Your task to perform on an android device: move an email to a new category in the gmail app Image 0: 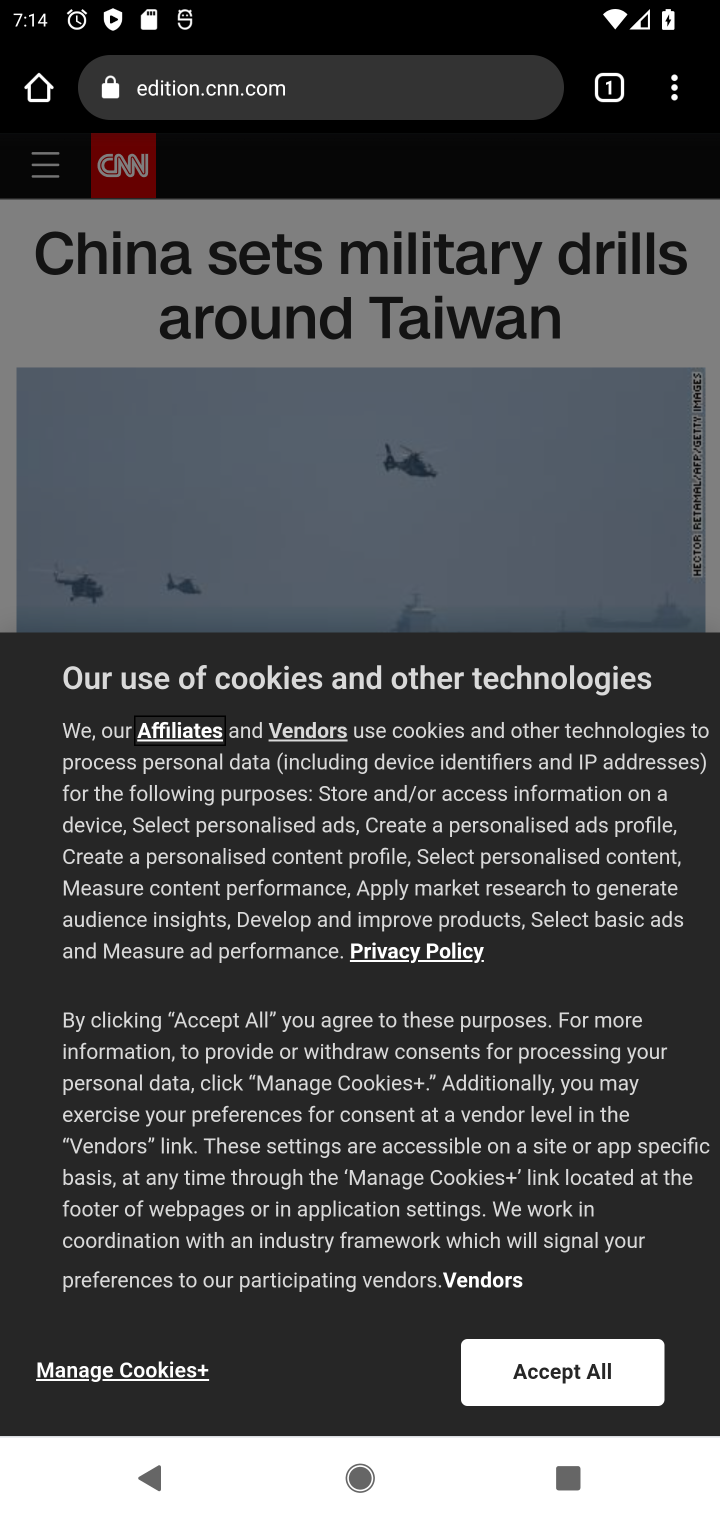
Step 0: press home button
Your task to perform on an android device: move an email to a new category in the gmail app Image 1: 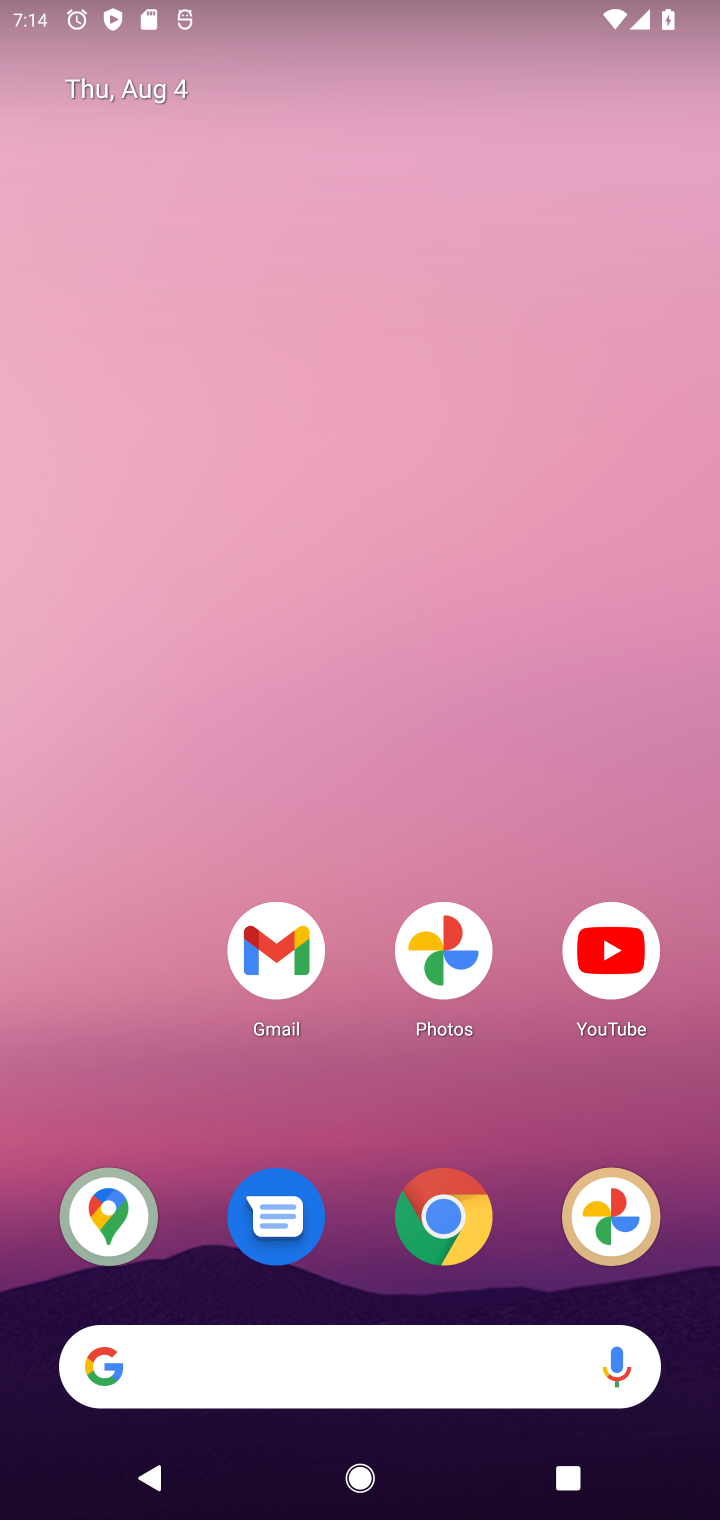
Step 1: click (269, 945)
Your task to perform on an android device: move an email to a new category in the gmail app Image 2: 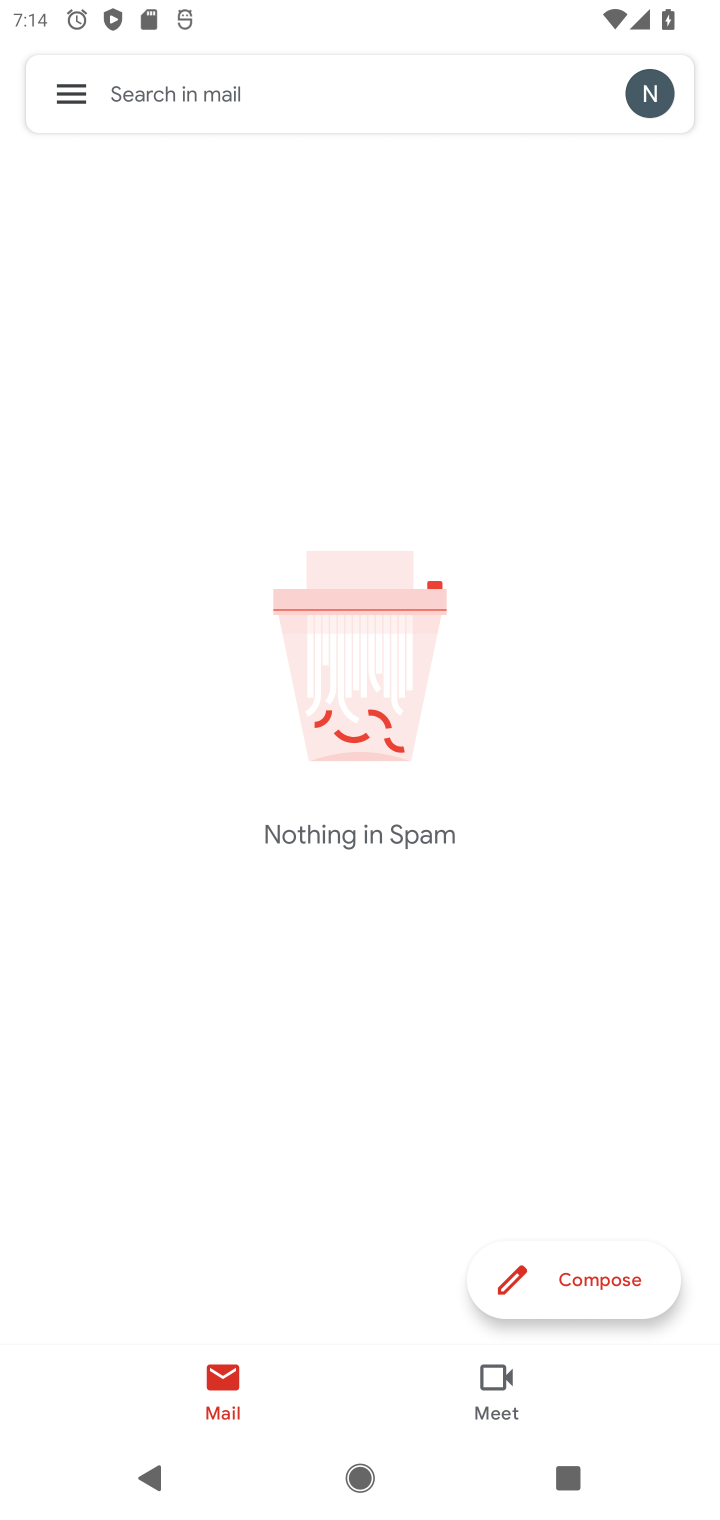
Step 2: press home button
Your task to perform on an android device: move an email to a new category in the gmail app Image 3: 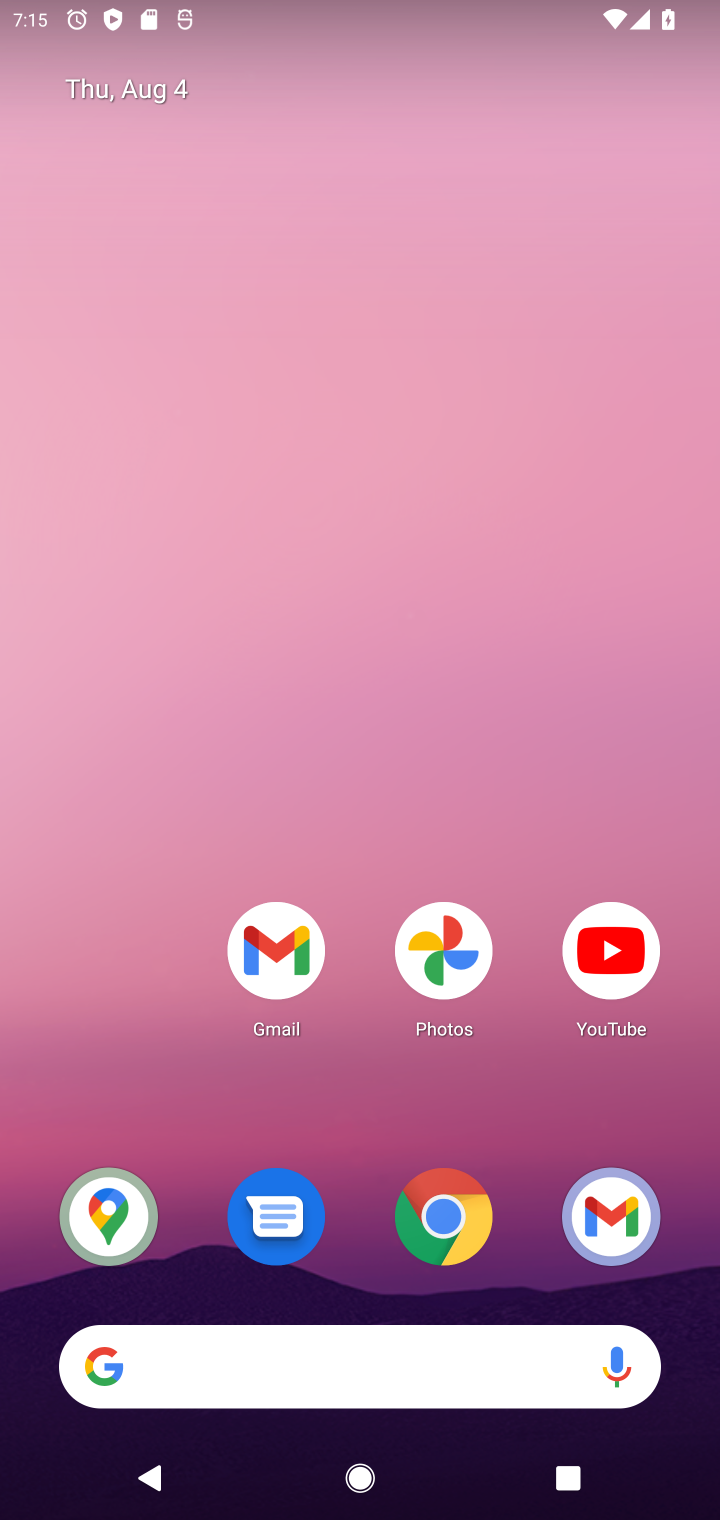
Step 3: click (312, 941)
Your task to perform on an android device: move an email to a new category in the gmail app Image 4: 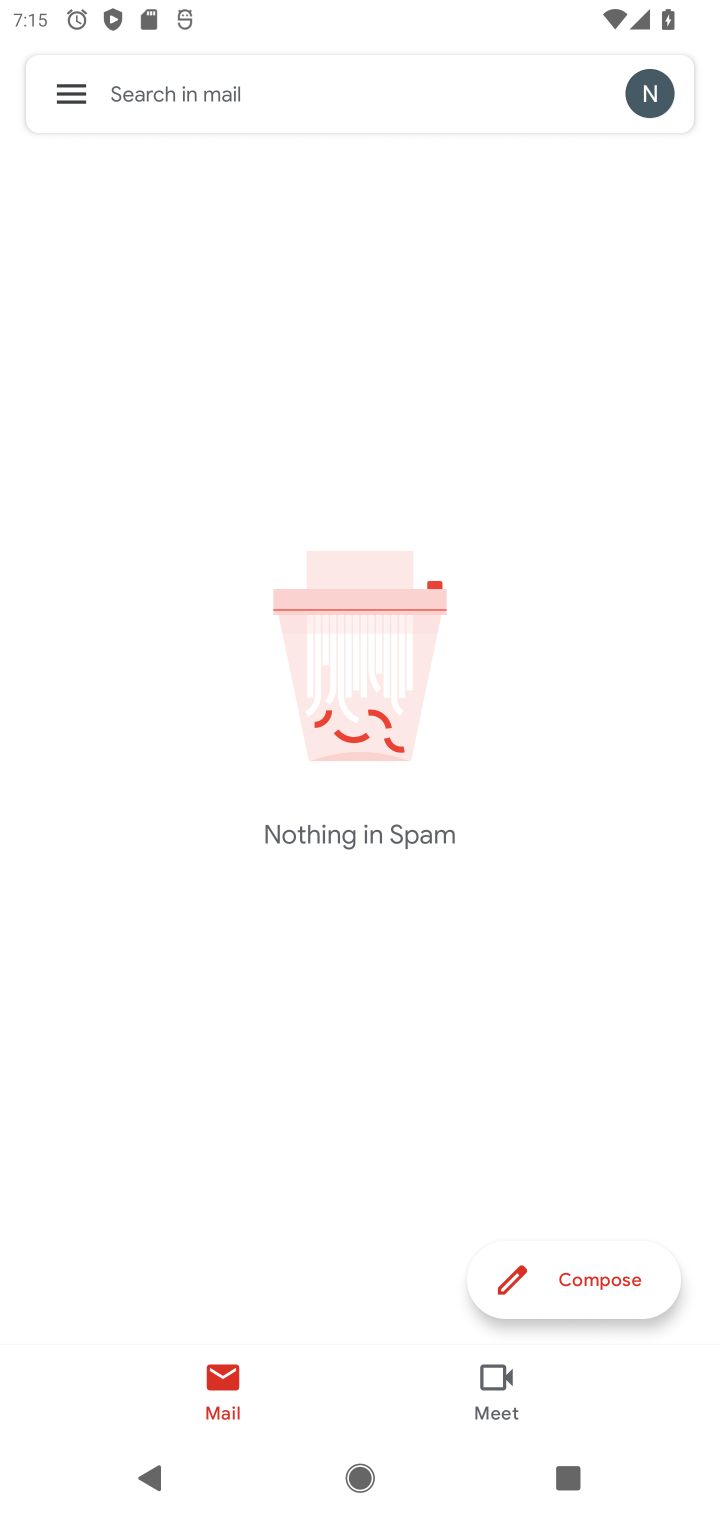
Step 4: click (79, 102)
Your task to perform on an android device: move an email to a new category in the gmail app Image 5: 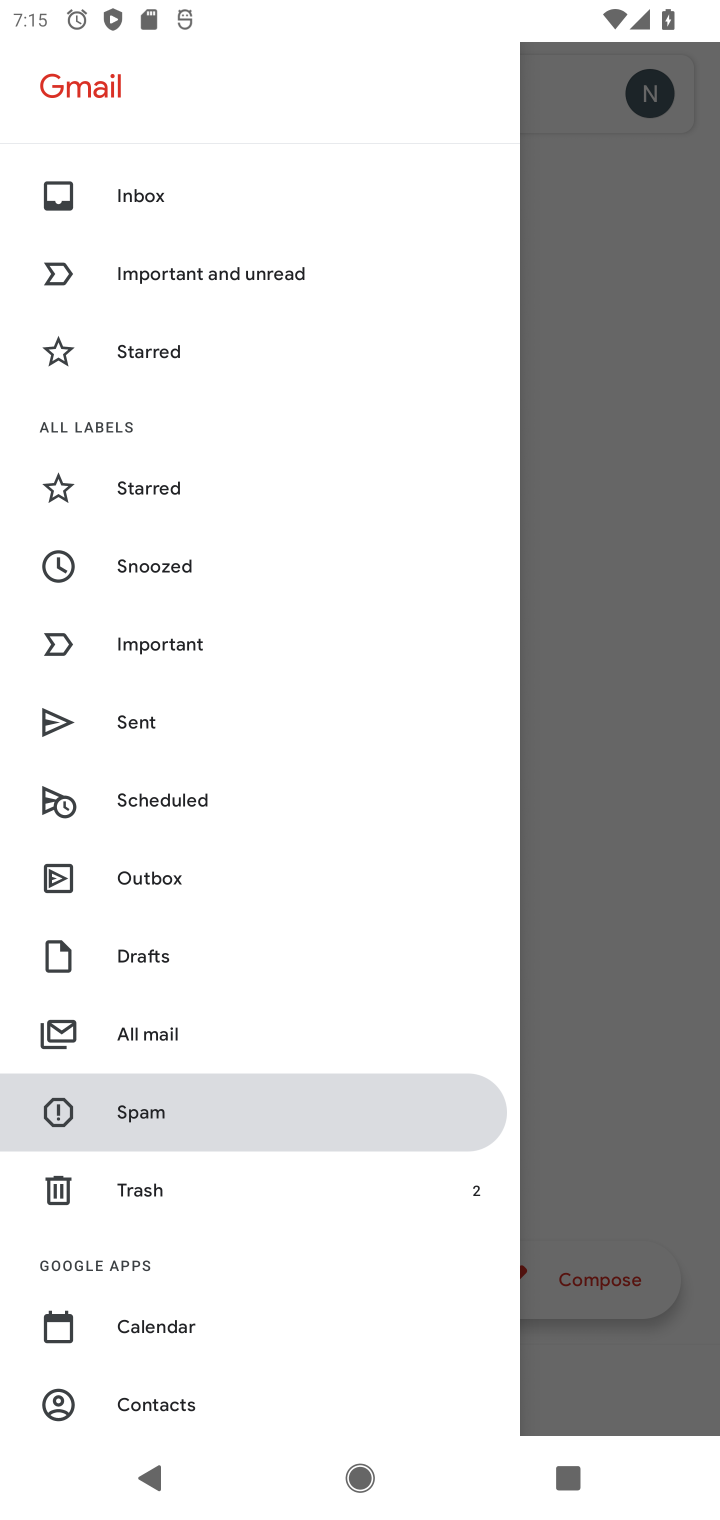
Step 5: click (203, 1038)
Your task to perform on an android device: move an email to a new category in the gmail app Image 6: 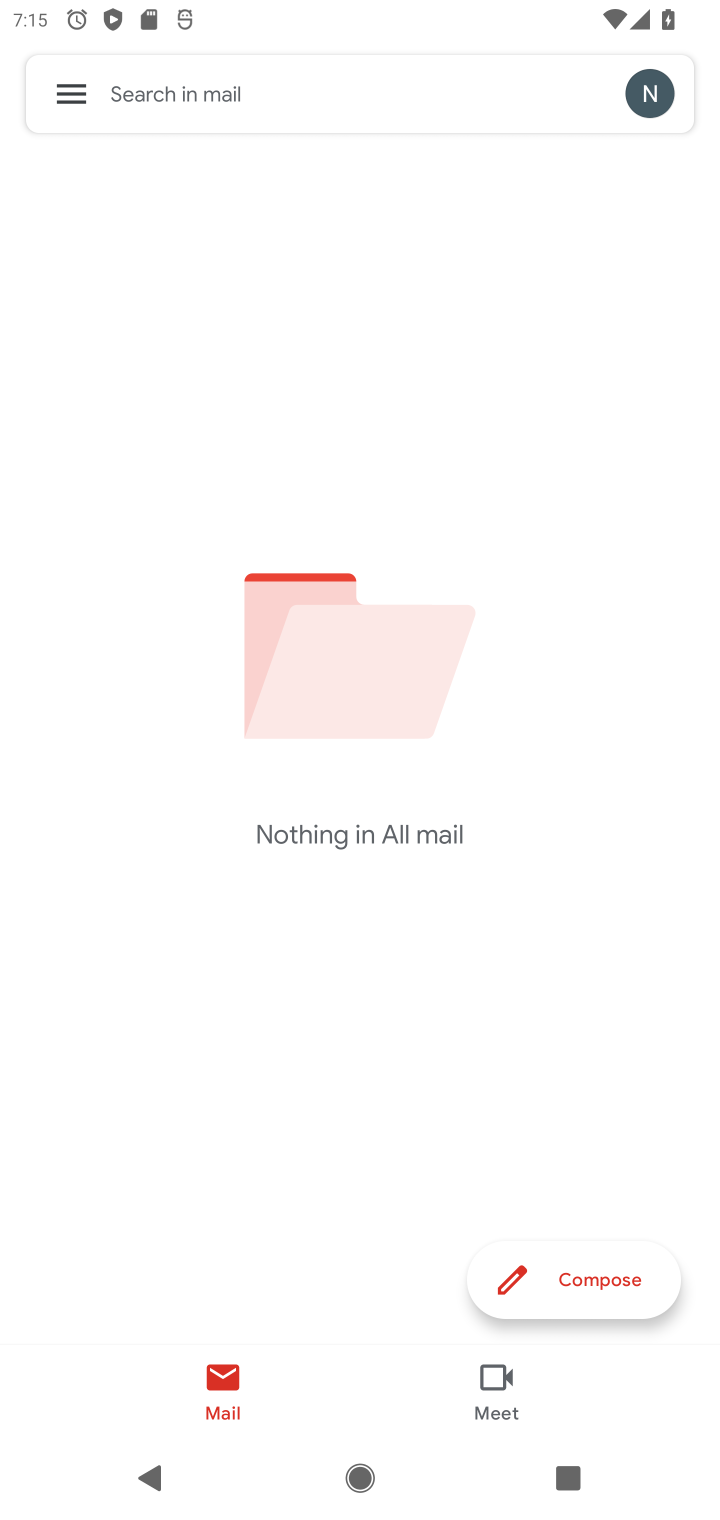
Step 6: task complete